Your task to perform on an android device: open sync settings in chrome Image 0: 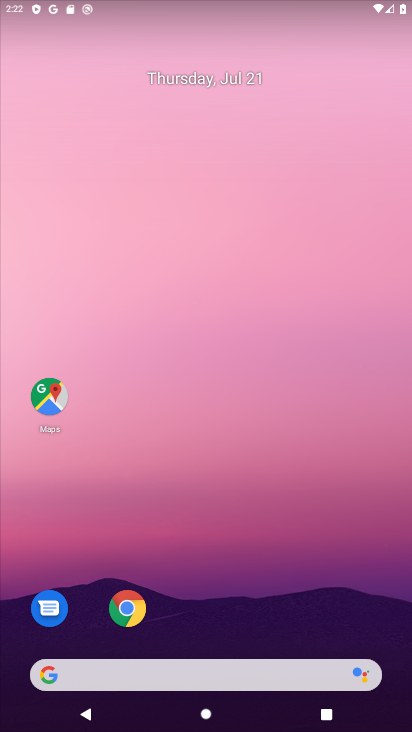
Step 0: drag from (209, 652) to (181, 36)
Your task to perform on an android device: open sync settings in chrome Image 1: 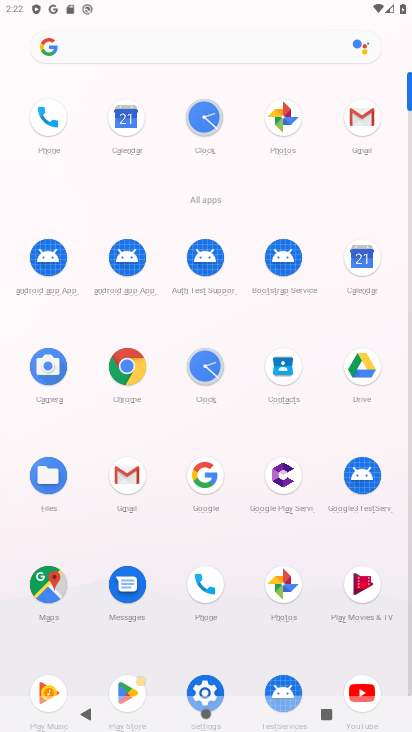
Step 1: click (121, 370)
Your task to perform on an android device: open sync settings in chrome Image 2: 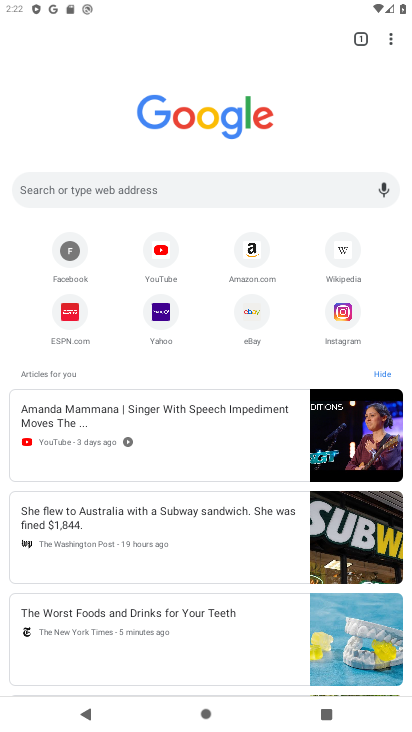
Step 2: drag from (391, 38) to (241, 374)
Your task to perform on an android device: open sync settings in chrome Image 3: 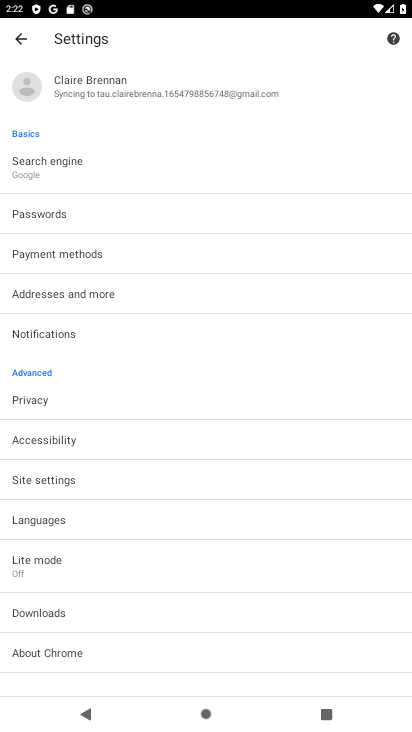
Step 3: click (39, 99)
Your task to perform on an android device: open sync settings in chrome Image 4: 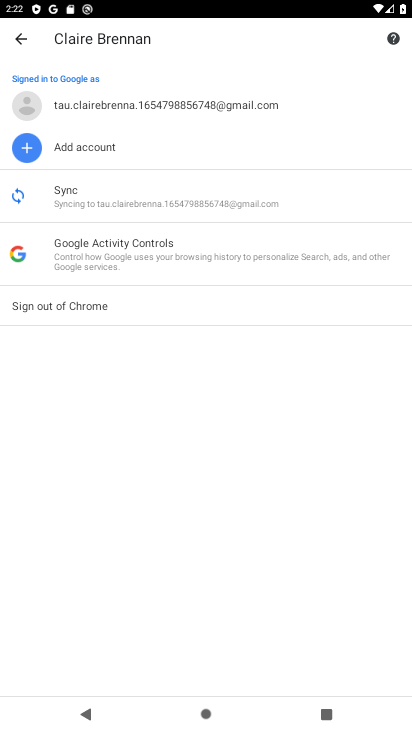
Step 4: click (85, 201)
Your task to perform on an android device: open sync settings in chrome Image 5: 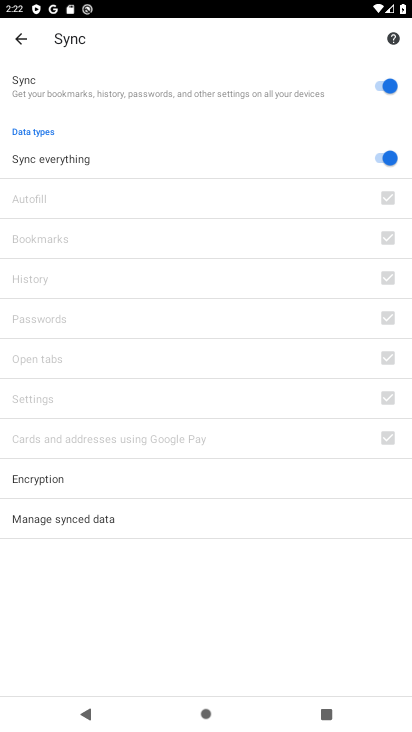
Step 5: task complete